Your task to perform on an android device: Go to settings Image 0: 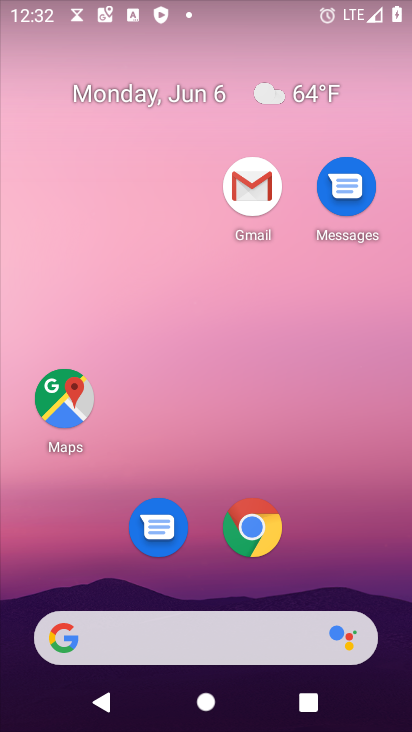
Step 0: drag from (321, 549) to (228, 9)
Your task to perform on an android device: Go to settings Image 1: 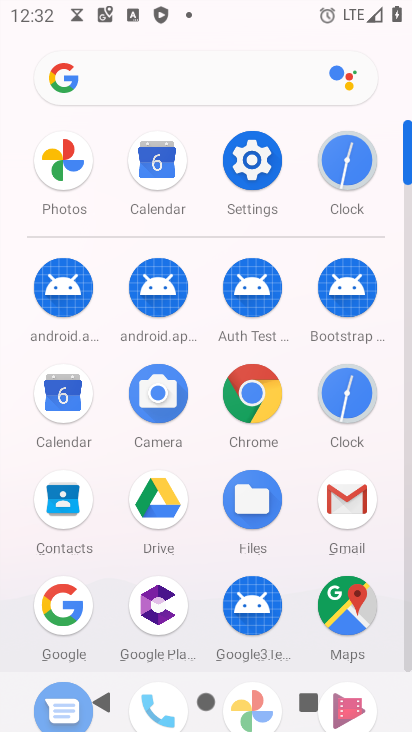
Step 1: click (247, 140)
Your task to perform on an android device: Go to settings Image 2: 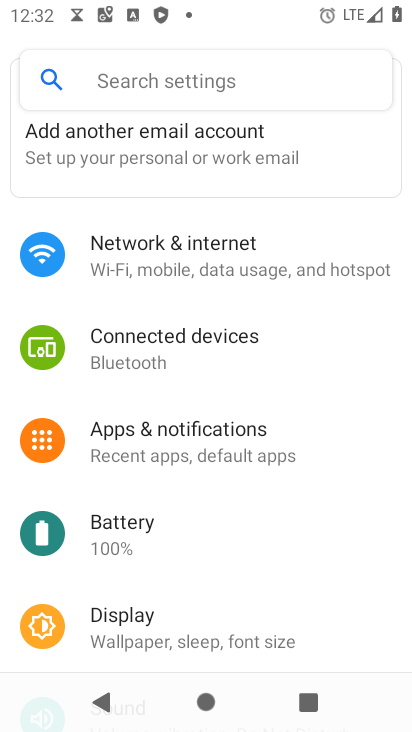
Step 2: task complete